Your task to perform on an android device: find snoozed emails in the gmail app Image 0: 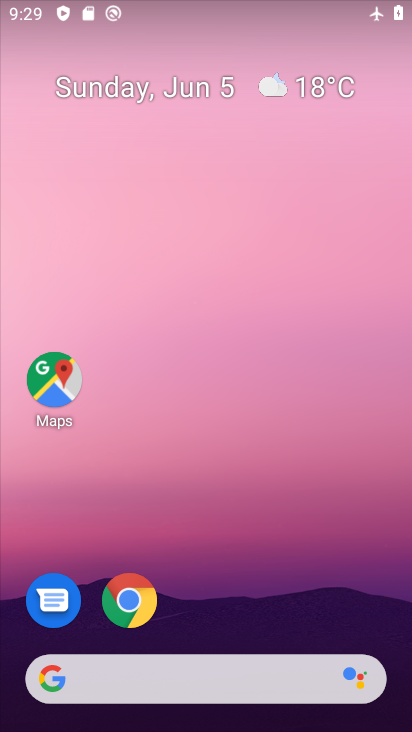
Step 0: drag from (331, 532) to (314, 16)
Your task to perform on an android device: find snoozed emails in the gmail app Image 1: 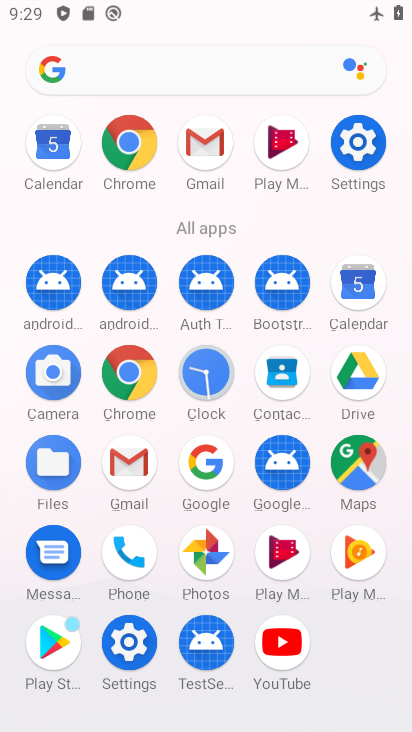
Step 1: click (212, 144)
Your task to perform on an android device: find snoozed emails in the gmail app Image 2: 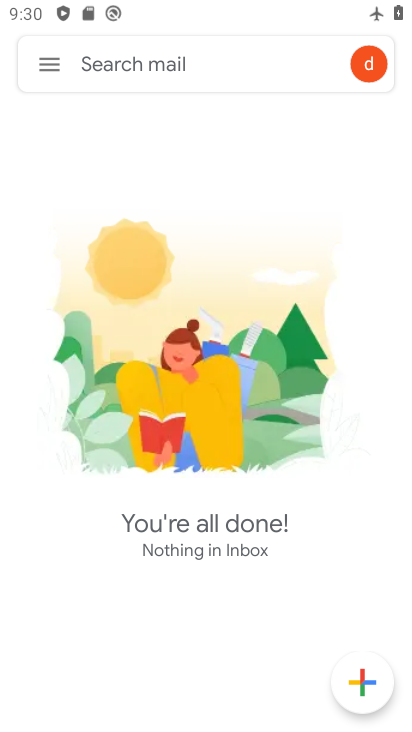
Step 2: click (48, 53)
Your task to perform on an android device: find snoozed emails in the gmail app Image 3: 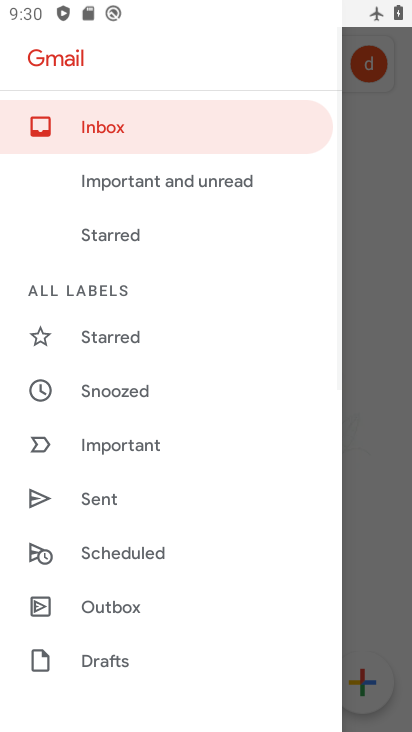
Step 3: click (118, 386)
Your task to perform on an android device: find snoozed emails in the gmail app Image 4: 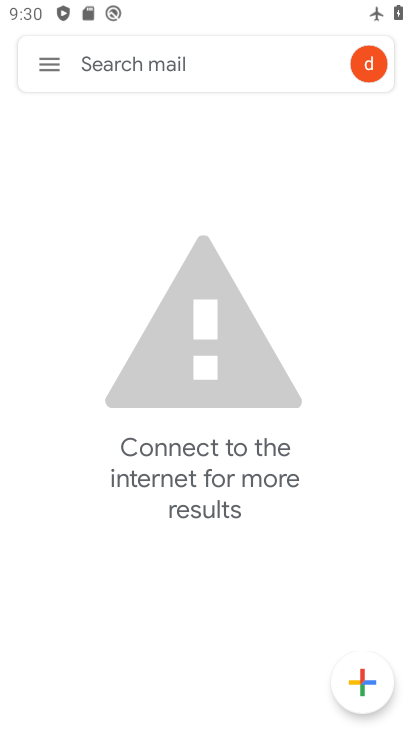
Step 4: task complete